Your task to perform on an android device: all mails in gmail Image 0: 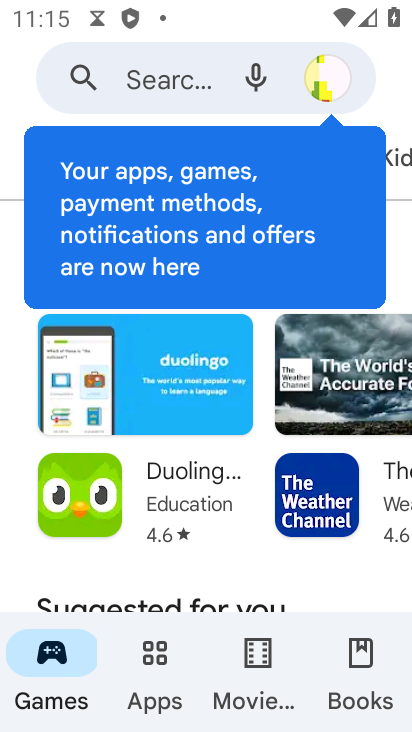
Step 0: press home button
Your task to perform on an android device: all mails in gmail Image 1: 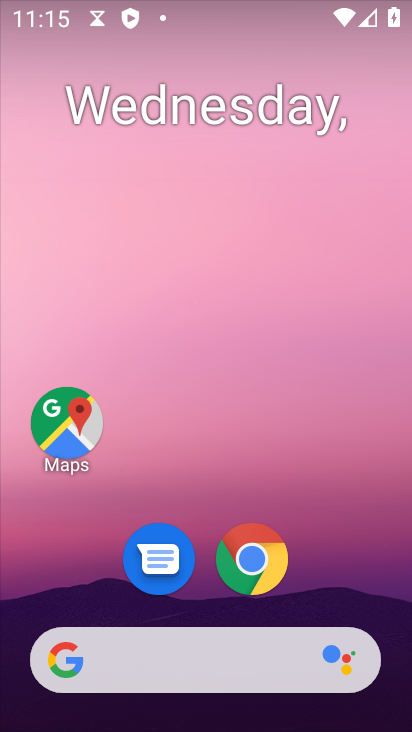
Step 1: drag from (352, 596) to (289, 266)
Your task to perform on an android device: all mails in gmail Image 2: 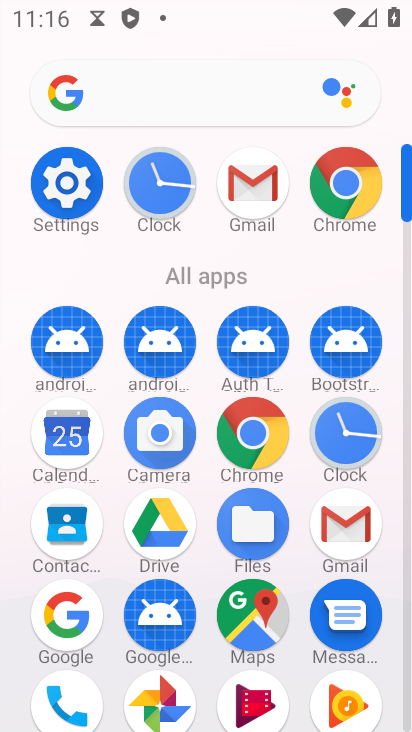
Step 2: click (250, 196)
Your task to perform on an android device: all mails in gmail Image 3: 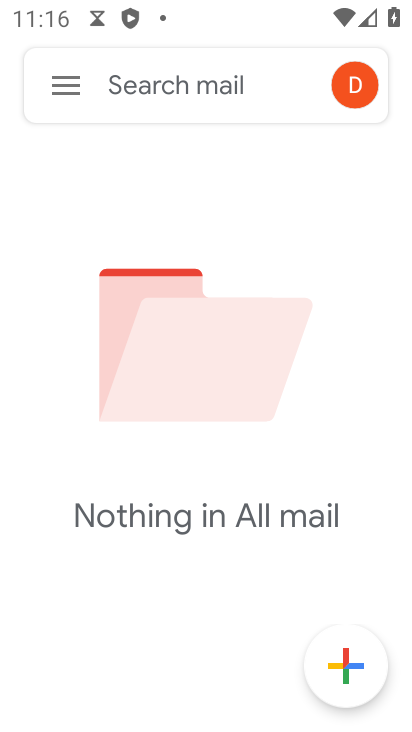
Step 3: task complete